Your task to perform on an android device: toggle translation in the chrome app Image 0: 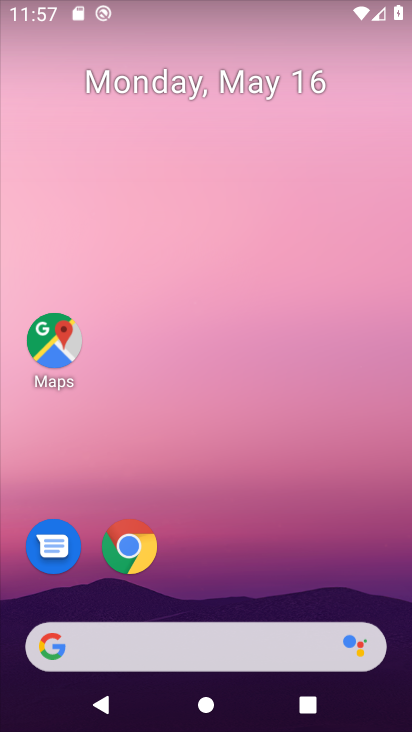
Step 0: click (135, 556)
Your task to perform on an android device: toggle translation in the chrome app Image 1: 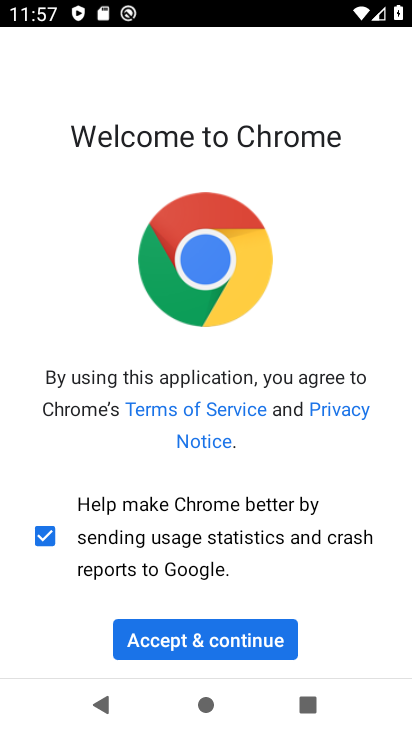
Step 1: click (192, 636)
Your task to perform on an android device: toggle translation in the chrome app Image 2: 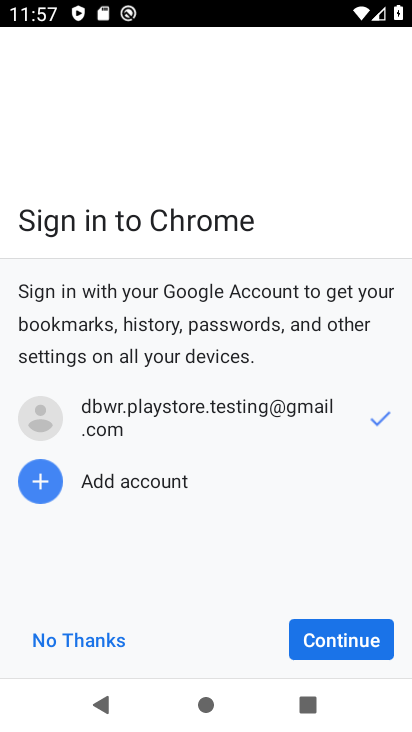
Step 2: click (313, 639)
Your task to perform on an android device: toggle translation in the chrome app Image 3: 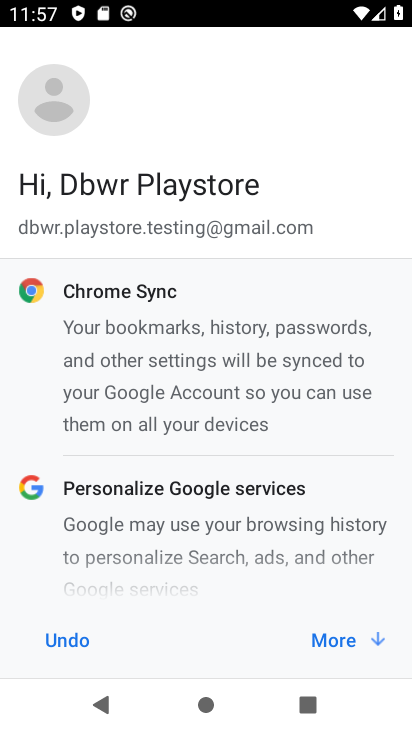
Step 3: click (328, 644)
Your task to perform on an android device: toggle translation in the chrome app Image 4: 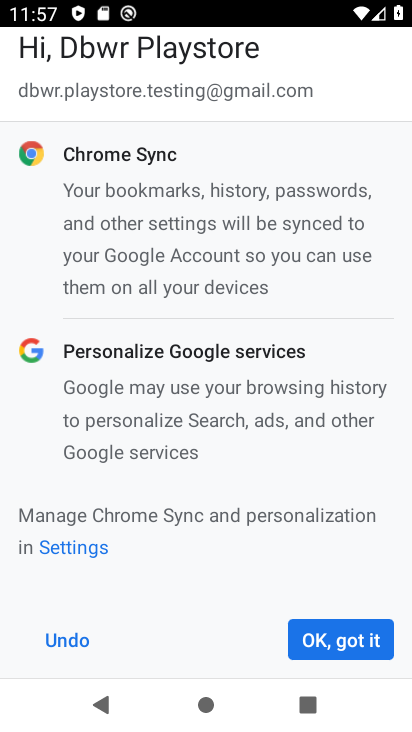
Step 4: click (320, 646)
Your task to perform on an android device: toggle translation in the chrome app Image 5: 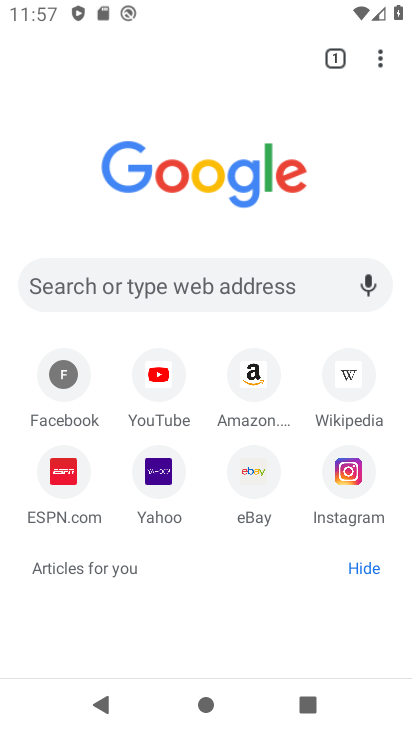
Step 5: drag from (383, 59) to (229, 491)
Your task to perform on an android device: toggle translation in the chrome app Image 6: 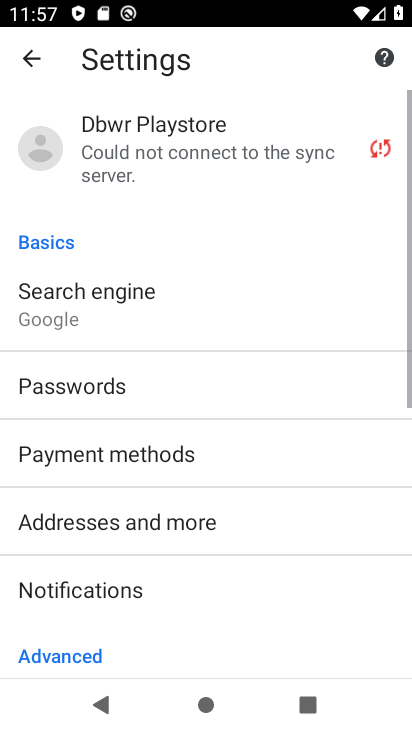
Step 6: drag from (178, 558) to (248, 195)
Your task to perform on an android device: toggle translation in the chrome app Image 7: 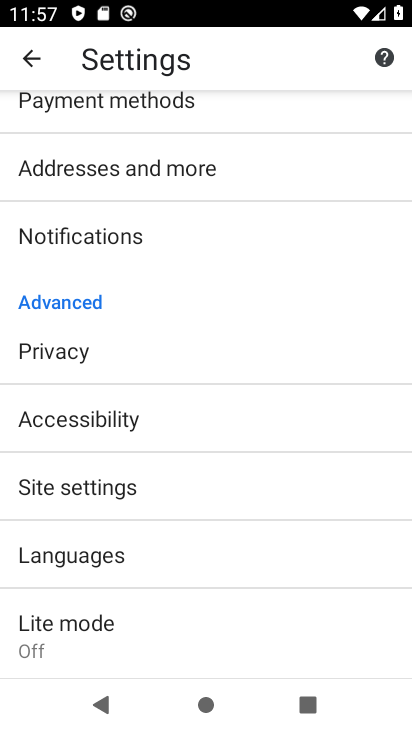
Step 7: click (104, 539)
Your task to perform on an android device: toggle translation in the chrome app Image 8: 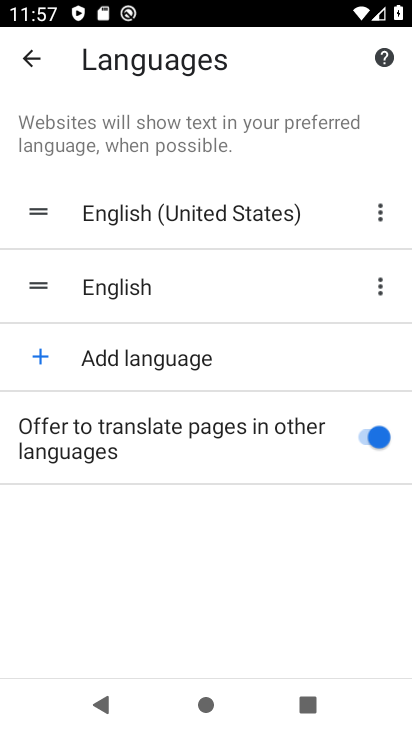
Step 8: click (359, 438)
Your task to perform on an android device: toggle translation in the chrome app Image 9: 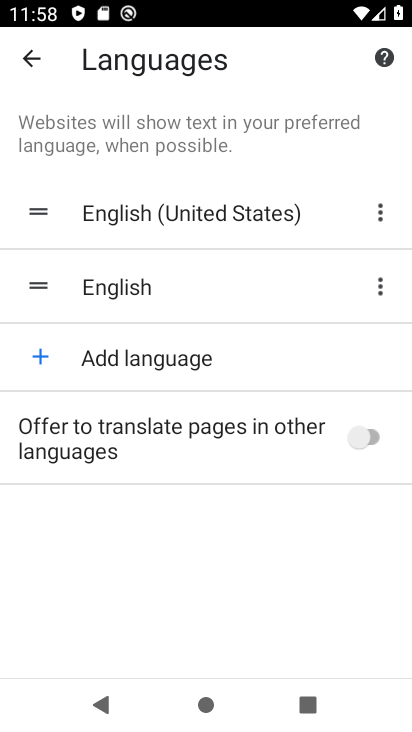
Step 9: task complete